Your task to perform on an android device: Go to network settings Image 0: 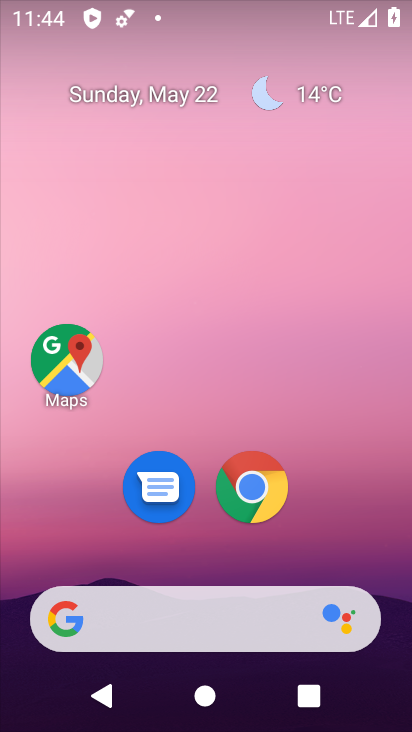
Step 0: drag from (332, 353) to (300, 43)
Your task to perform on an android device: Go to network settings Image 1: 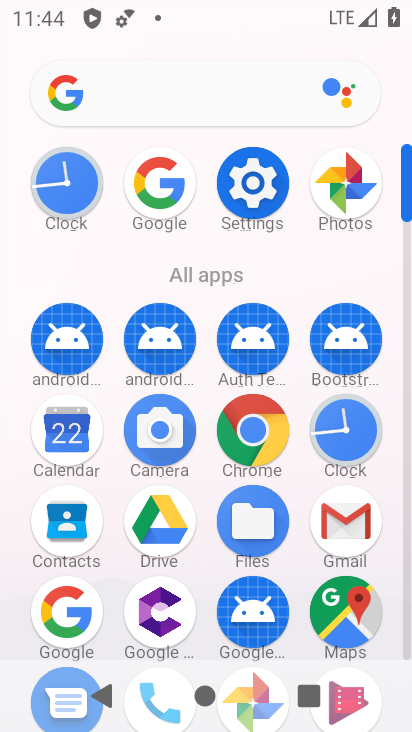
Step 1: click (263, 185)
Your task to perform on an android device: Go to network settings Image 2: 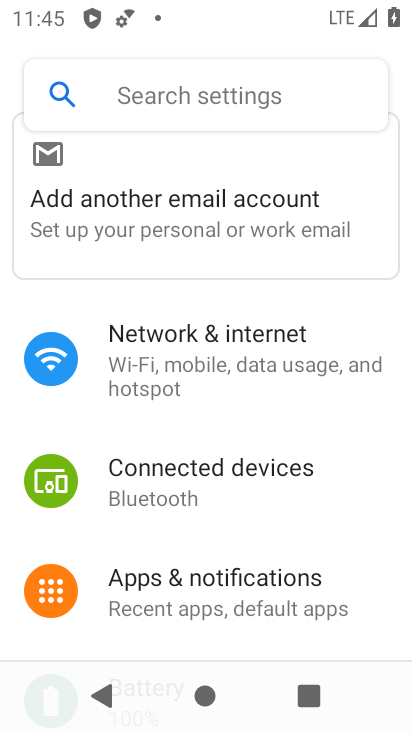
Step 2: click (216, 346)
Your task to perform on an android device: Go to network settings Image 3: 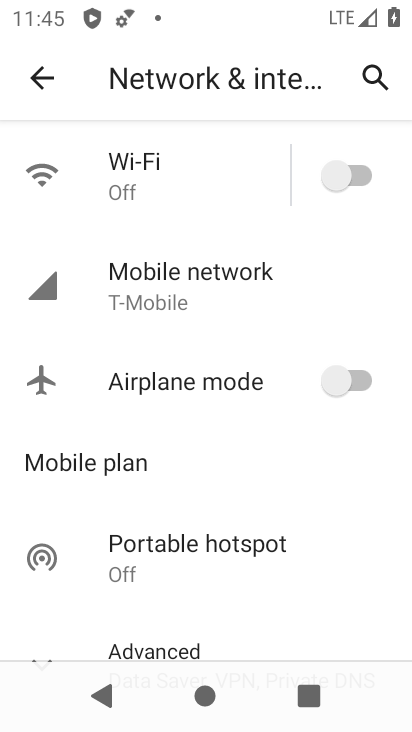
Step 3: click (181, 279)
Your task to perform on an android device: Go to network settings Image 4: 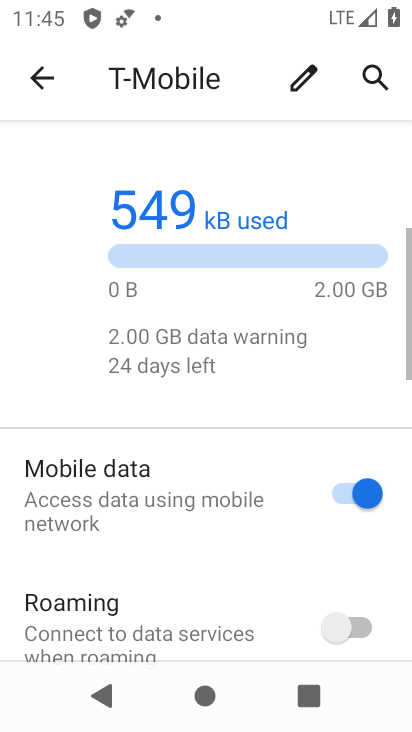
Step 4: task complete